Your task to perform on an android device: Clear the shopping cart on bestbuy.com. Add "bose soundlink" to the cart on bestbuy.com, then select checkout. Image 0: 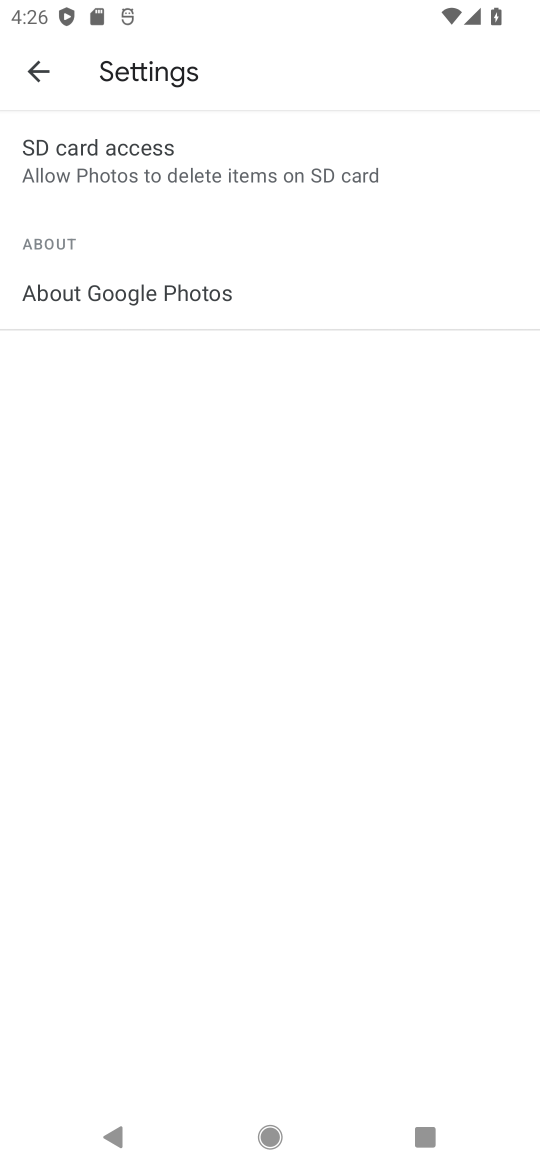
Step 0: press home button
Your task to perform on an android device: Clear the shopping cart on bestbuy.com. Add "bose soundlink" to the cart on bestbuy.com, then select checkout. Image 1: 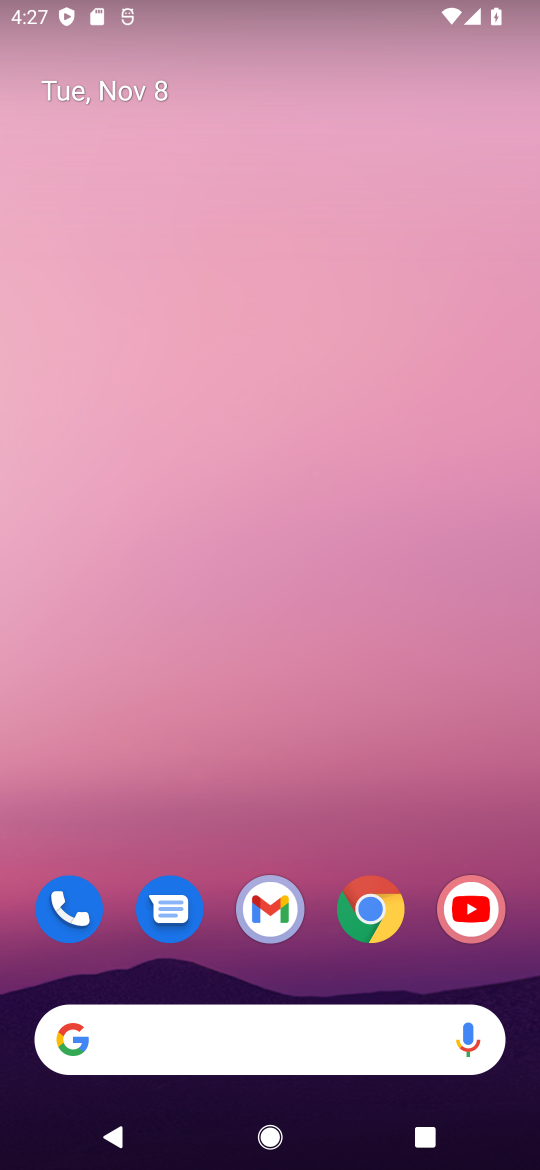
Step 1: click (386, 915)
Your task to perform on an android device: Clear the shopping cart on bestbuy.com. Add "bose soundlink" to the cart on bestbuy.com, then select checkout. Image 2: 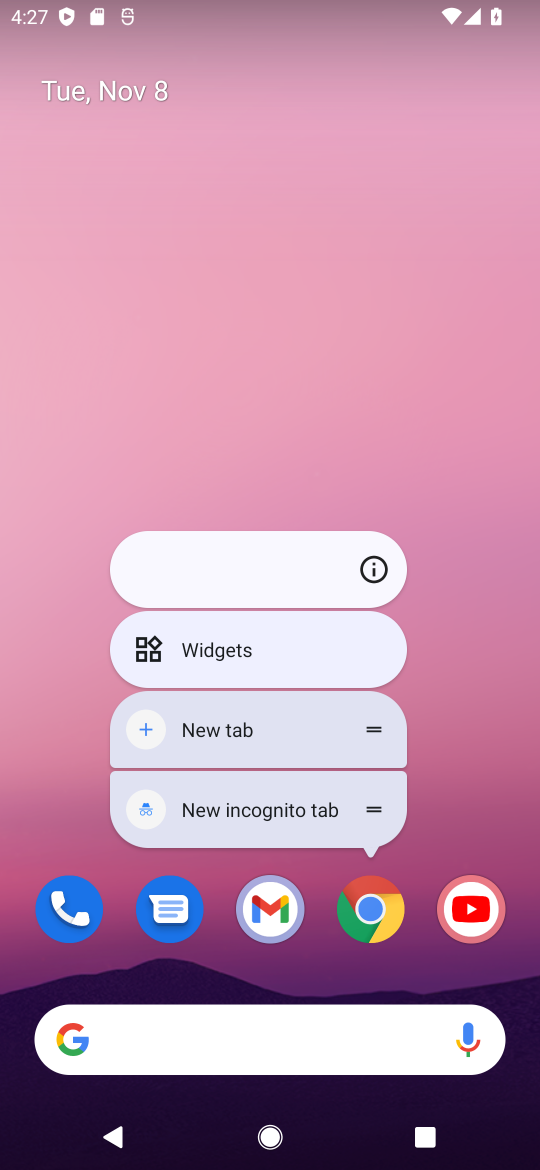
Step 2: click (364, 904)
Your task to perform on an android device: Clear the shopping cart on bestbuy.com. Add "bose soundlink" to the cart on bestbuy.com, then select checkout. Image 3: 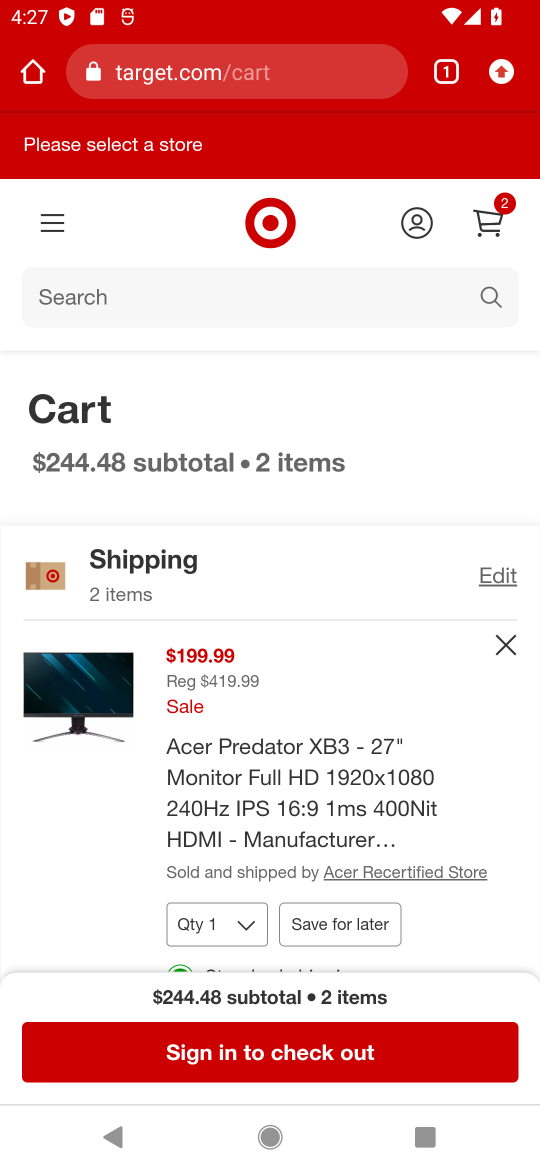
Step 3: click (262, 66)
Your task to perform on an android device: Clear the shopping cart on bestbuy.com. Add "bose soundlink" to the cart on bestbuy.com, then select checkout. Image 4: 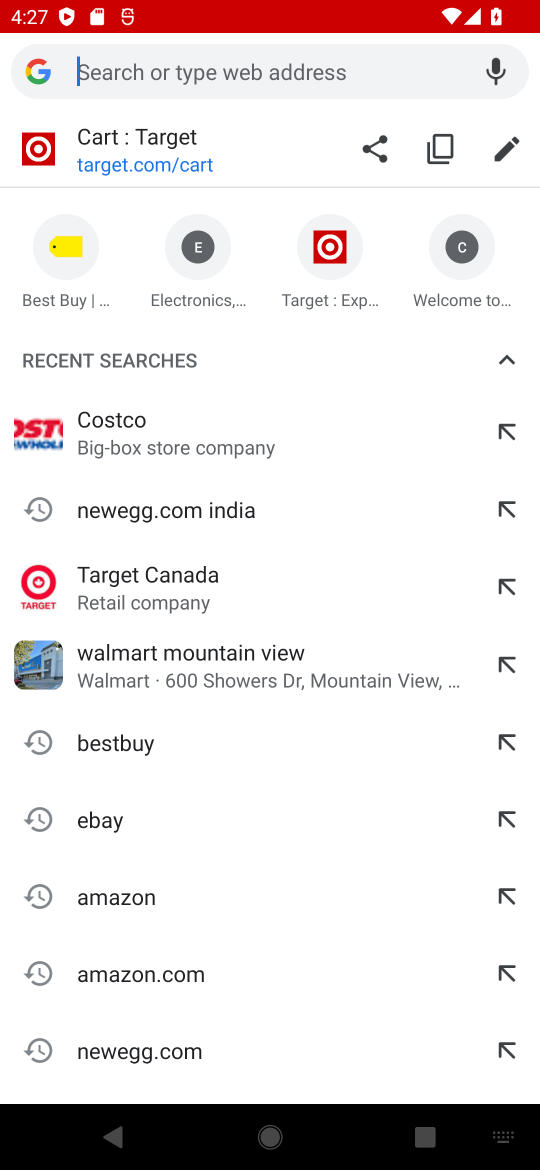
Step 4: click (114, 744)
Your task to perform on an android device: Clear the shopping cart on bestbuy.com. Add "bose soundlink" to the cart on bestbuy.com, then select checkout. Image 5: 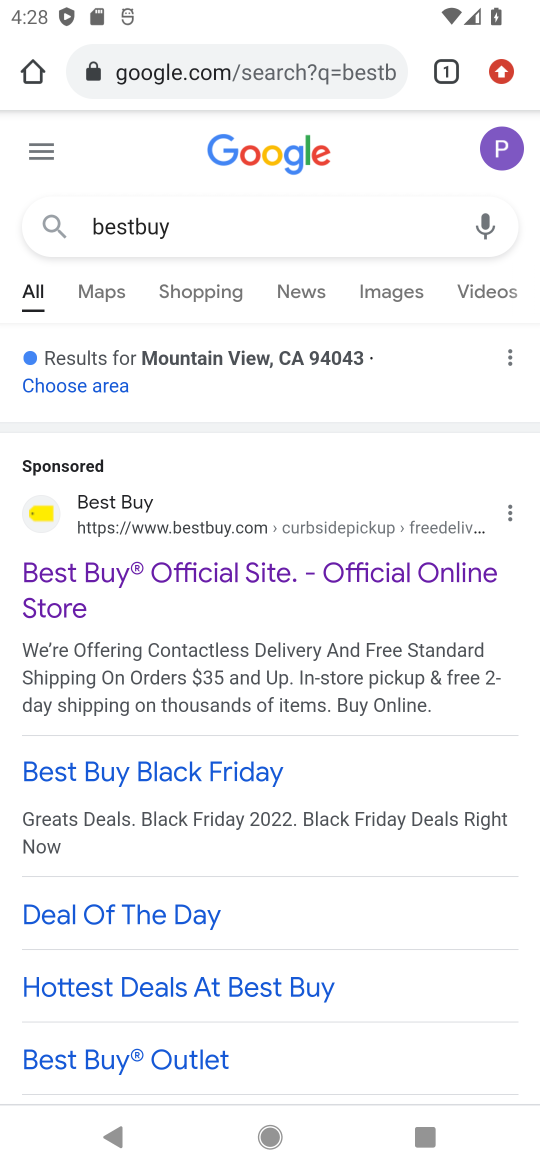
Step 5: click (171, 564)
Your task to perform on an android device: Clear the shopping cart on bestbuy.com. Add "bose soundlink" to the cart on bestbuy.com, then select checkout. Image 6: 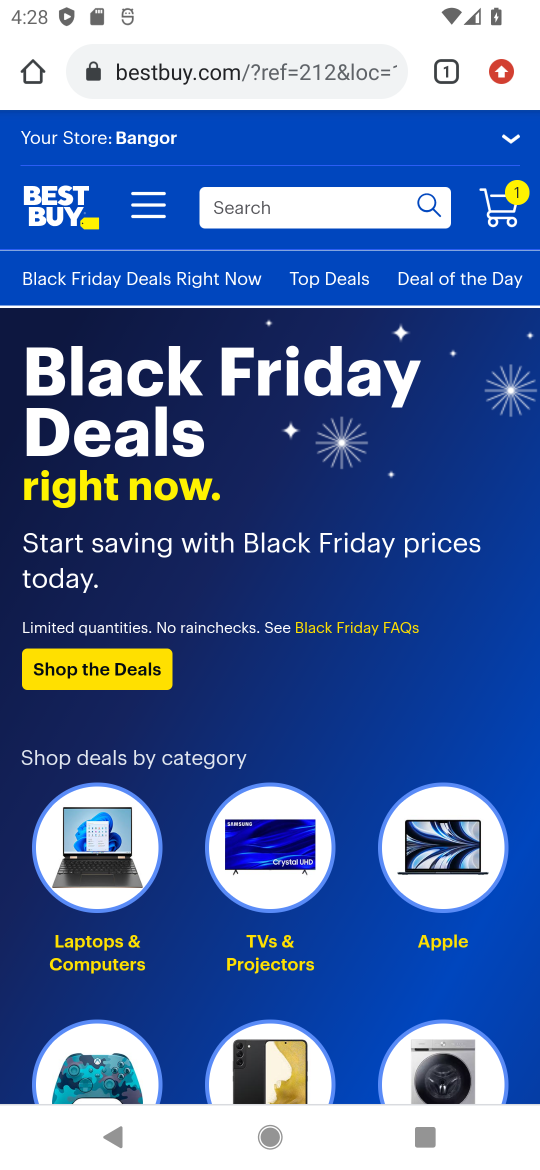
Step 6: click (298, 209)
Your task to perform on an android device: Clear the shopping cart on bestbuy.com. Add "bose soundlink" to the cart on bestbuy.com, then select checkout. Image 7: 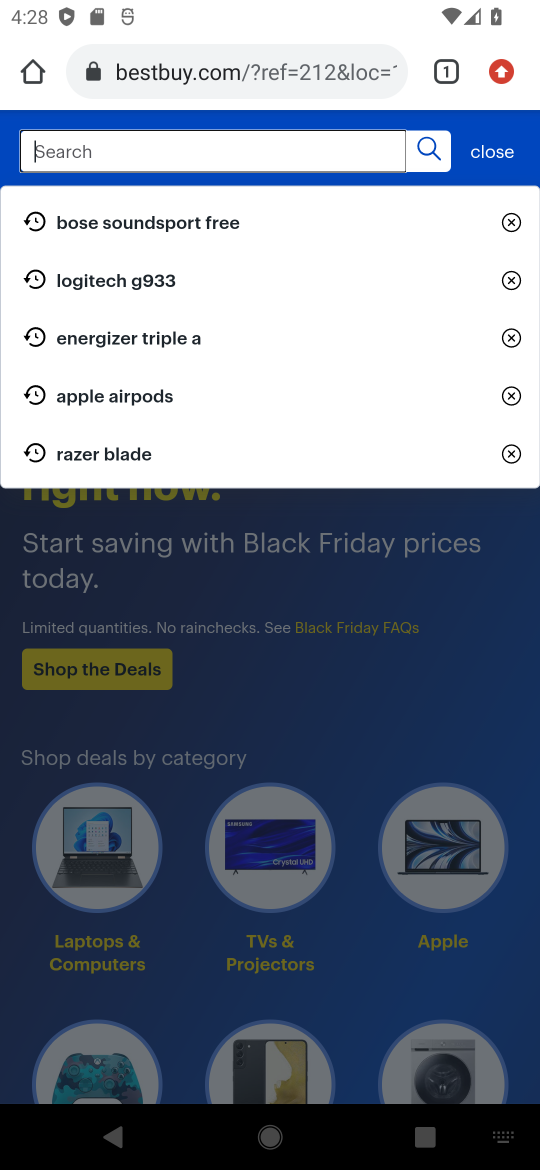
Step 7: type "bose soundlink"
Your task to perform on an android device: Clear the shopping cart on bestbuy.com. Add "bose soundlink" to the cart on bestbuy.com, then select checkout. Image 8: 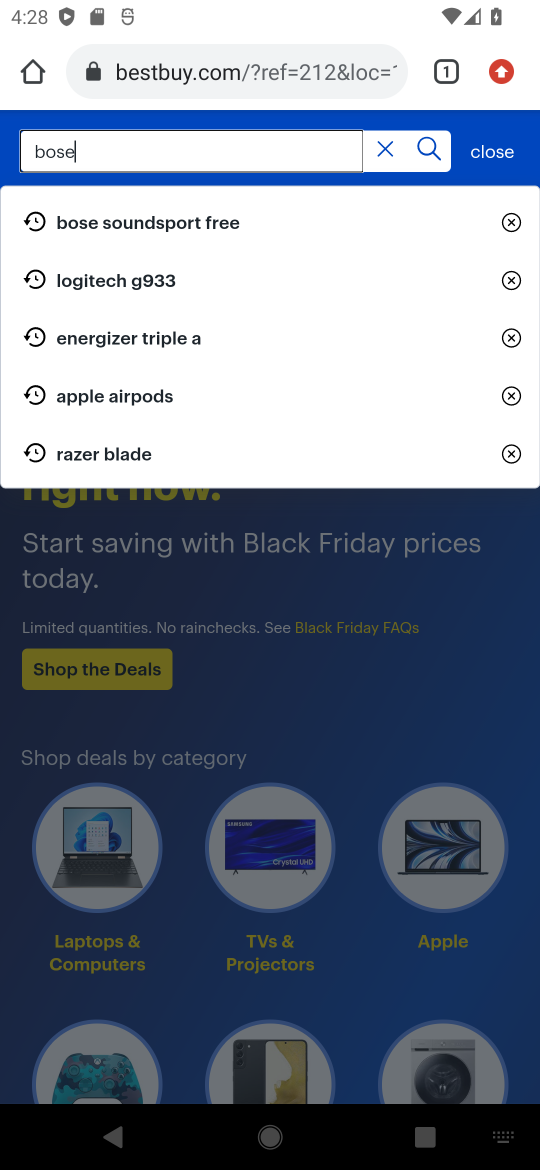
Step 8: press enter
Your task to perform on an android device: Clear the shopping cart on bestbuy.com. Add "bose soundlink" to the cart on bestbuy.com, then select checkout. Image 9: 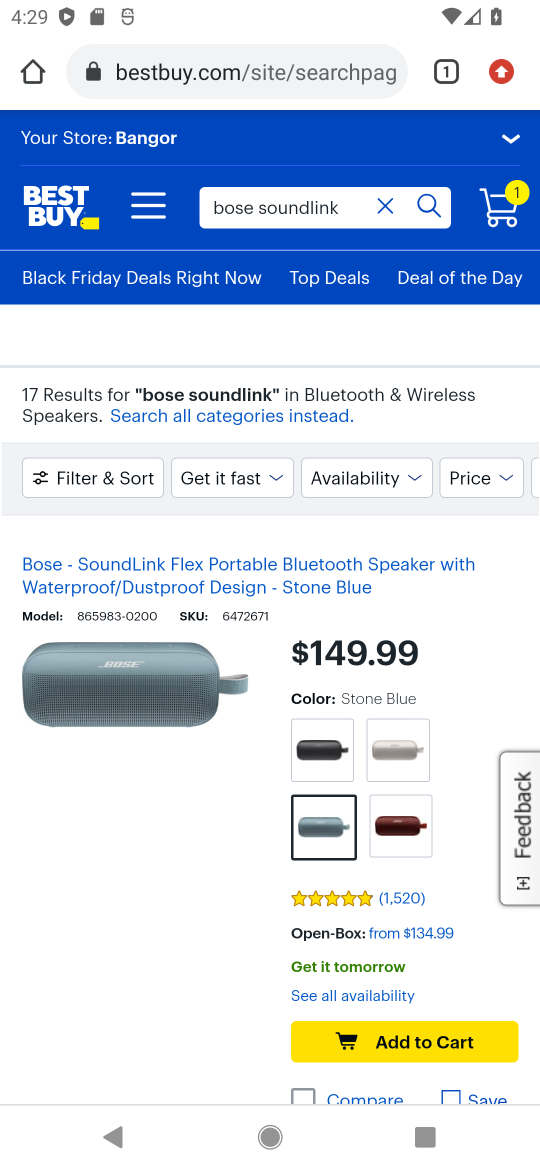
Step 9: click (413, 1042)
Your task to perform on an android device: Clear the shopping cart on bestbuy.com. Add "bose soundlink" to the cart on bestbuy.com, then select checkout. Image 10: 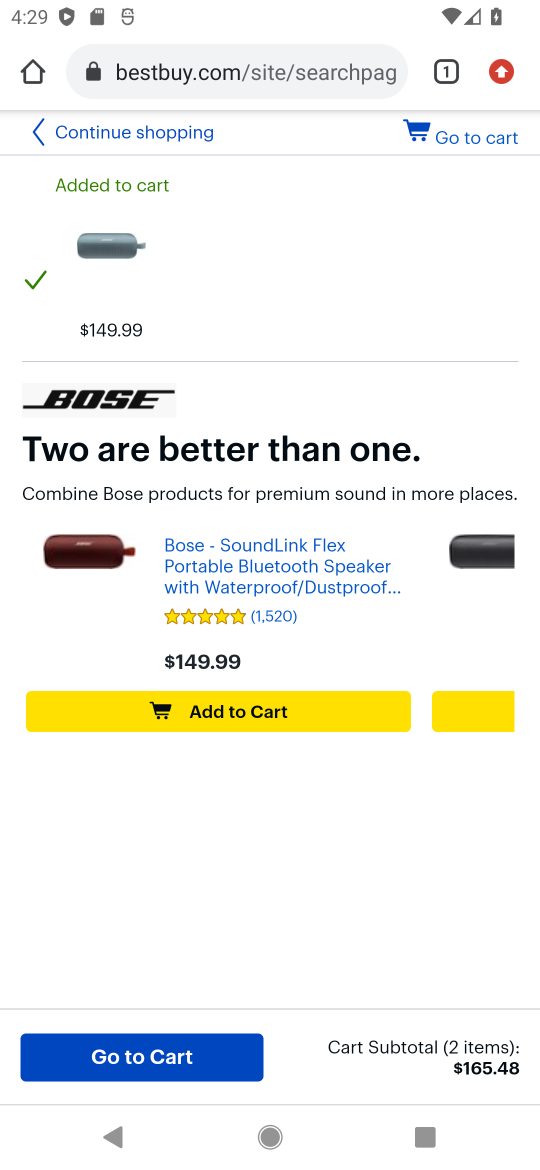
Step 10: click (463, 124)
Your task to perform on an android device: Clear the shopping cart on bestbuy.com. Add "bose soundlink" to the cart on bestbuy.com, then select checkout. Image 11: 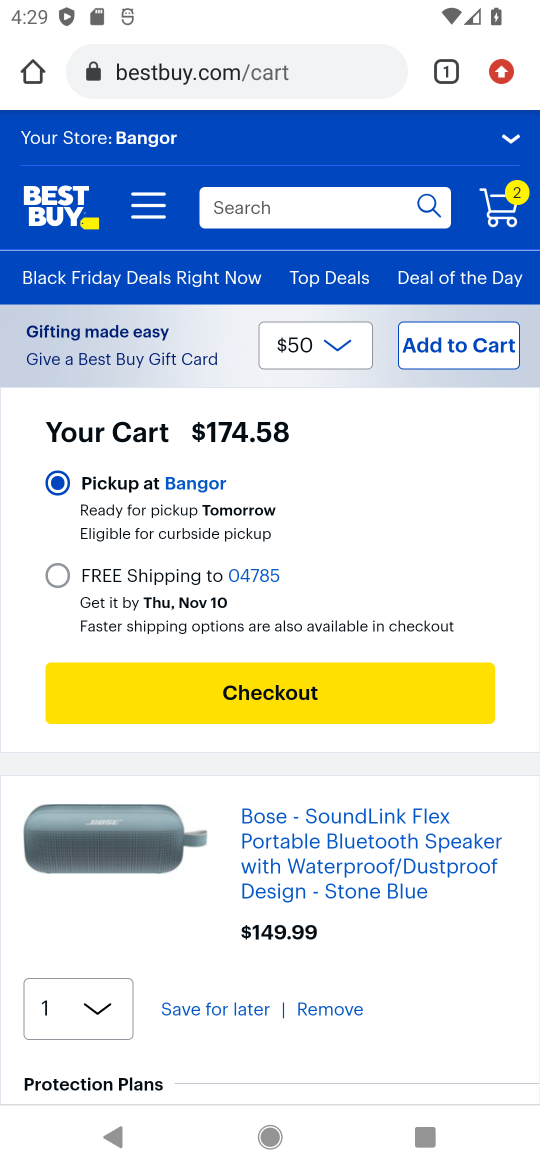
Step 11: click (281, 692)
Your task to perform on an android device: Clear the shopping cart on bestbuy.com. Add "bose soundlink" to the cart on bestbuy.com, then select checkout. Image 12: 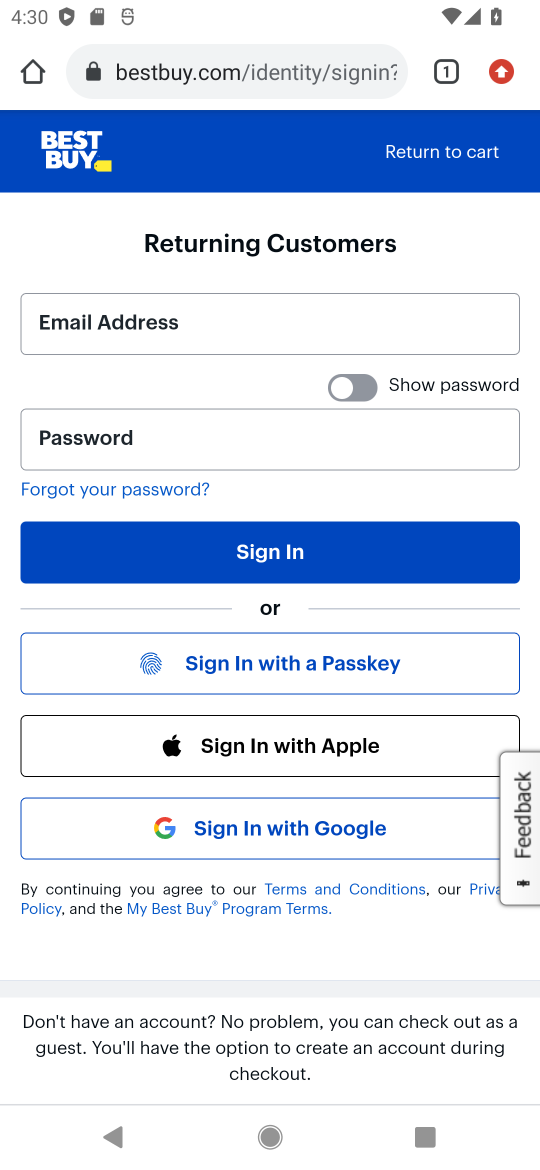
Step 12: task complete